Your task to perform on an android device: show emergency info Image 0: 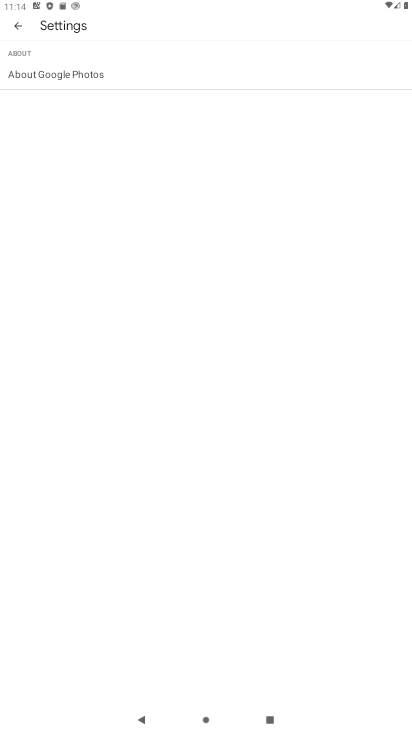
Step 0: press home button
Your task to perform on an android device: show emergency info Image 1: 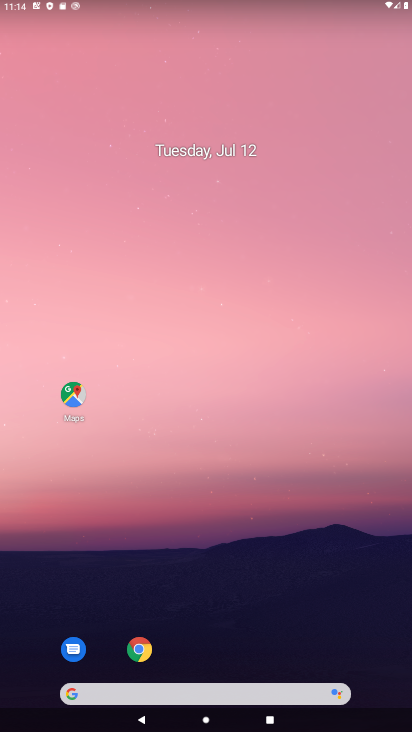
Step 1: drag from (377, 604) to (320, 38)
Your task to perform on an android device: show emergency info Image 2: 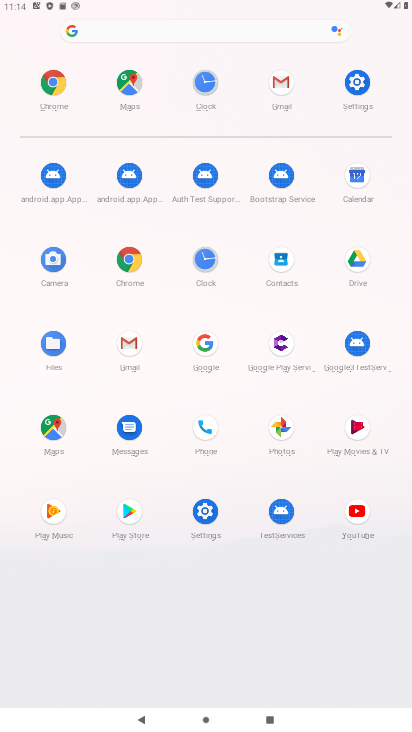
Step 2: click (204, 509)
Your task to perform on an android device: show emergency info Image 3: 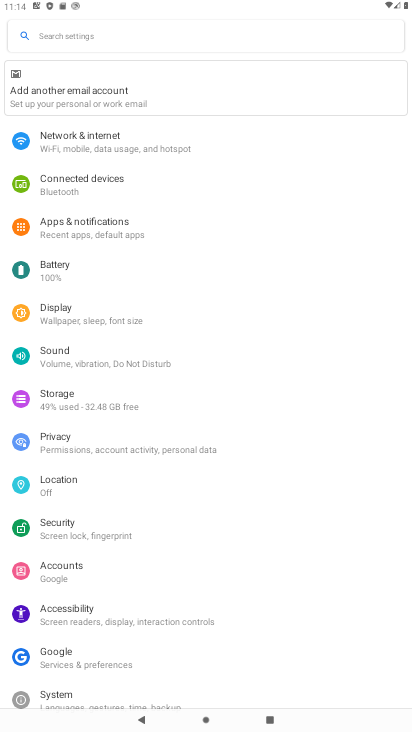
Step 3: drag from (330, 678) to (266, 100)
Your task to perform on an android device: show emergency info Image 4: 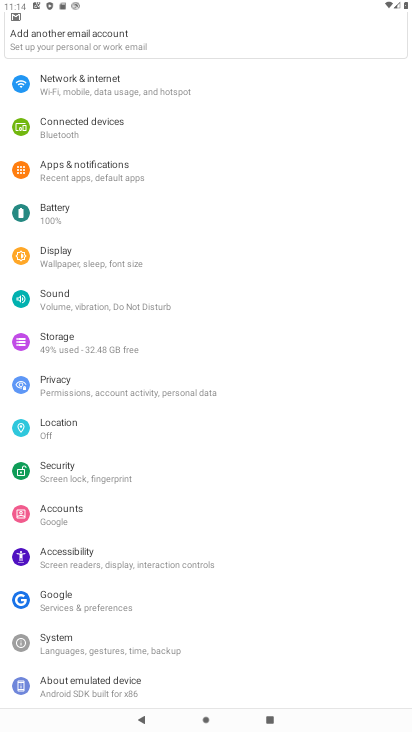
Step 4: click (103, 677)
Your task to perform on an android device: show emergency info Image 5: 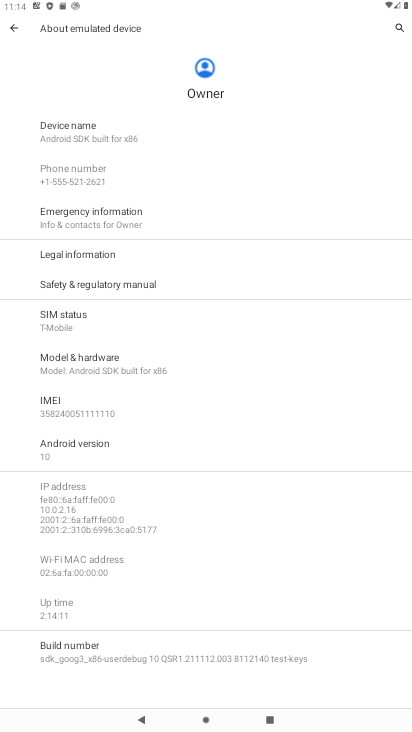
Step 5: click (74, 203)
Your task to perform on an android device: show emergency info Image 6: 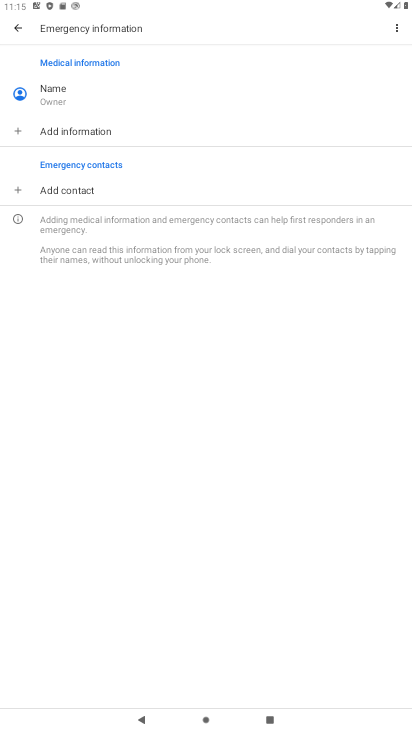
Step 6: task complete